Your task to perform on an android device: check battery use Image 0: 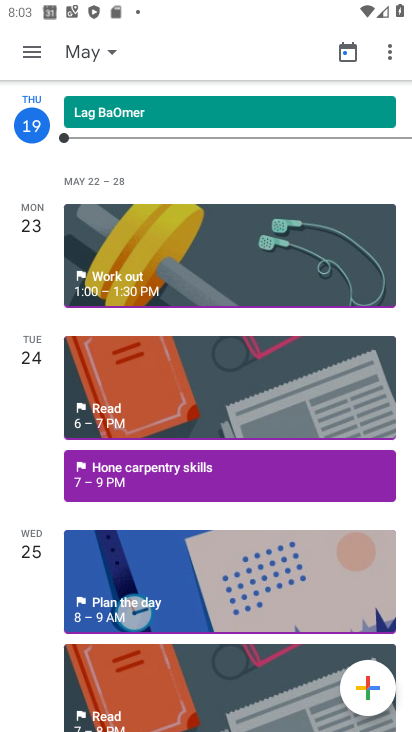
Step 0: press home button
Your task to perform on an android device: check battery use Image 1: 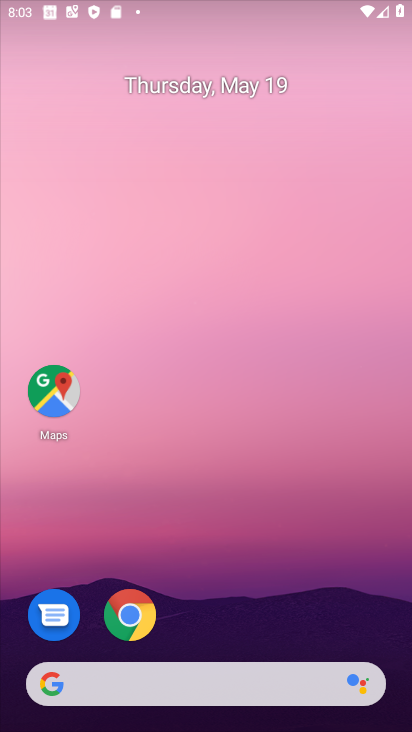
Step 1: drag from (240, 576) to (284, 132)
Your task to perform on an android device: check battery use Image 2: 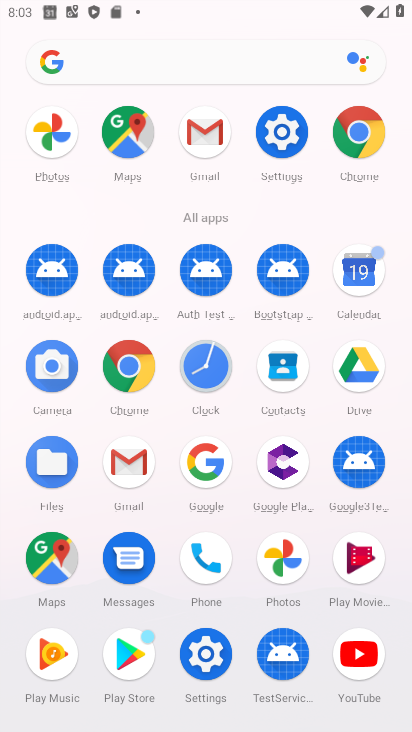
Step 2: click (274, 132)
Your task to perform on an android device: check battery use Image 3: 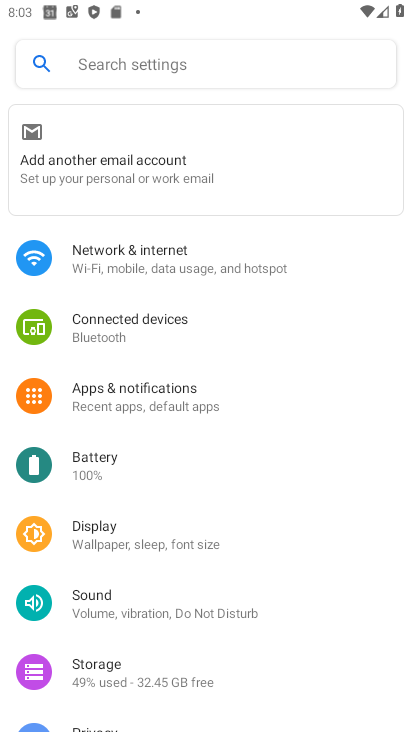
Step 3: click (136, 488)
Your task to perform on an android device: check battery use Image 4: 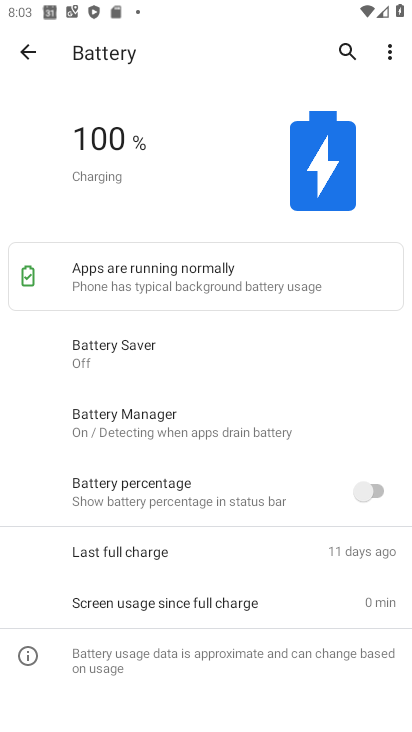
Step 4: click (385, 46)
Your task to perform on an android device: check battery use Image 5: 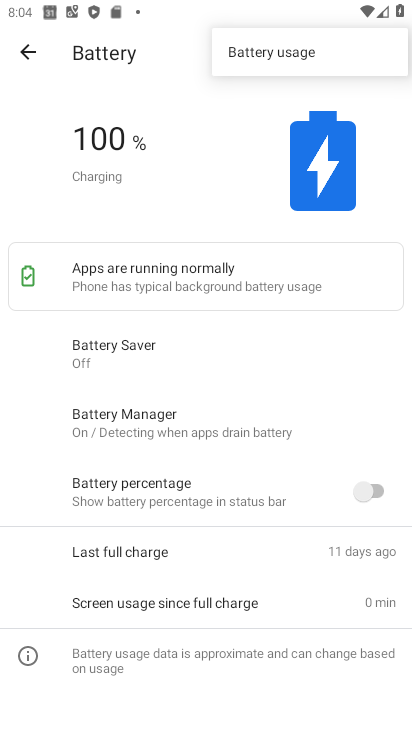
Step 5: click (284, 58)
Your task to perform on an android device: check battery use Image 6: 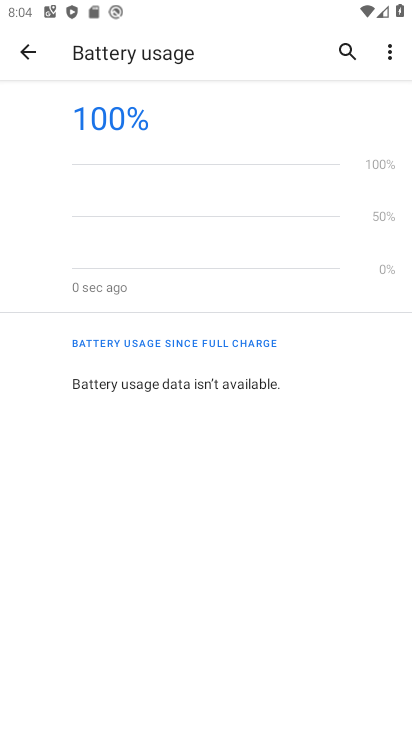
Step 6: task complete